Your task to perform on an android device: What is the news today? Image 0: 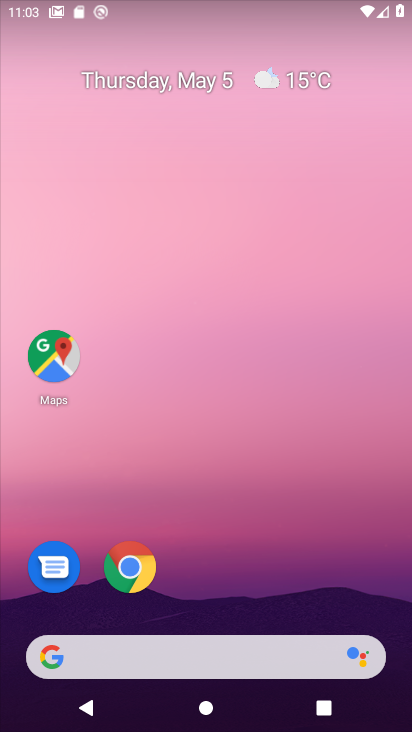
Step 0: drag from (33, 234) to (412, 181)
Your task to perform on an android device: What is the news today? Image 1: 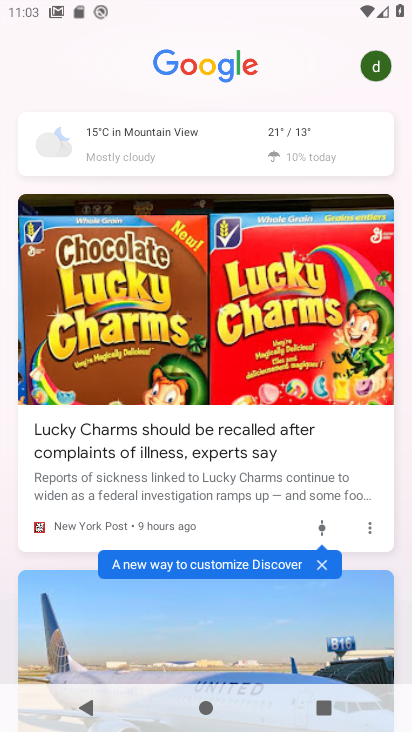
Step 1: task complete